Your task to perform on an android device: Open the Play Movies app and select the watchlist tab. Image 0: 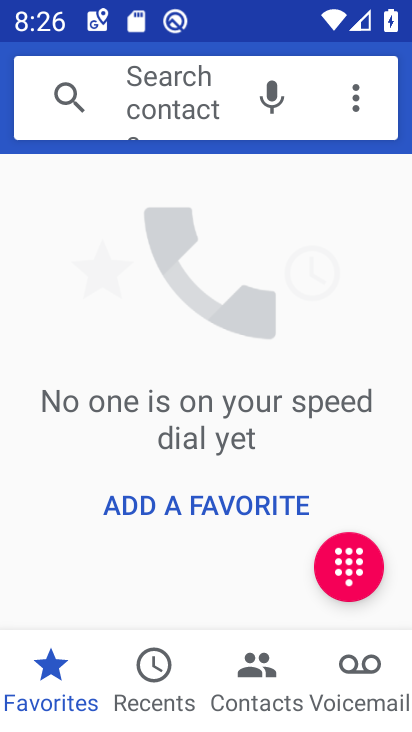
Step 0: press back button
Your task to perform on an android device: Open the Play Movies app and select the watchlist tab. Image 1: 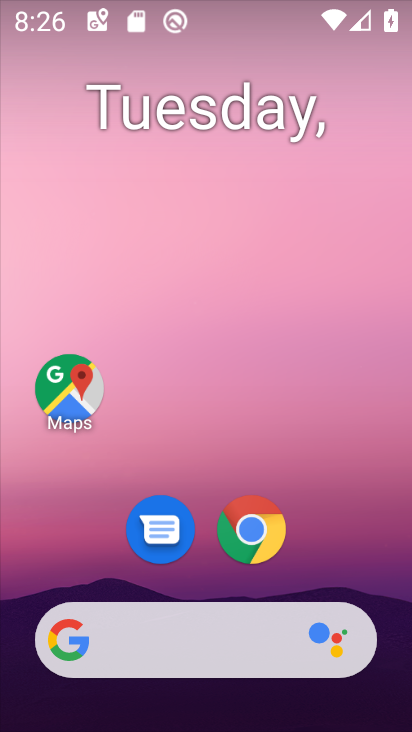
Step 1: drag from (239, 453) to (260, 10)
Your task to perform on an android device: Open the Play Movies app and select the watchlist tab. Image 2: 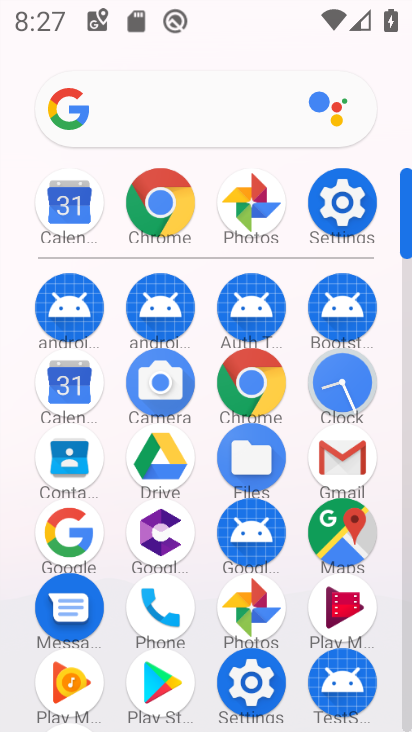
Step 2: click (340, 608)
Your task to perform on an android device: Open the Play Movies app and select the watchlist tab. Image 3: 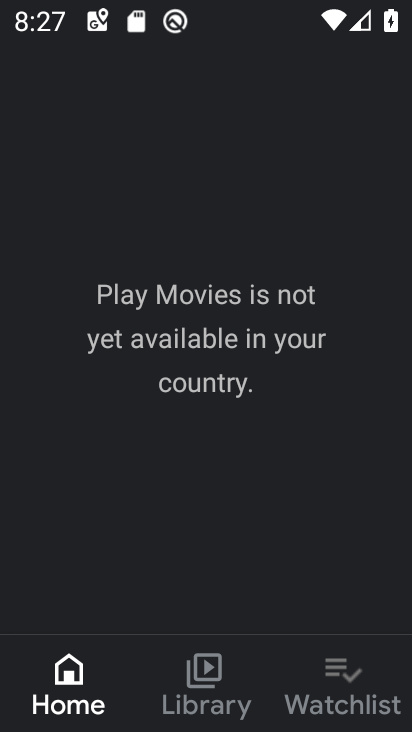
Step 3: click (358, 682)
Your task to perform on an android device: Open the Play Movies app and select the watchlist tab. Image 4: 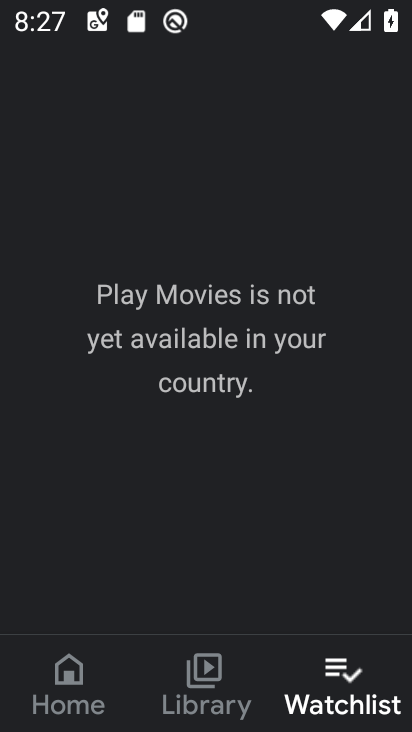
Step 4: task complete